Your task to perform on an android device: Go to battery settings Image 0: 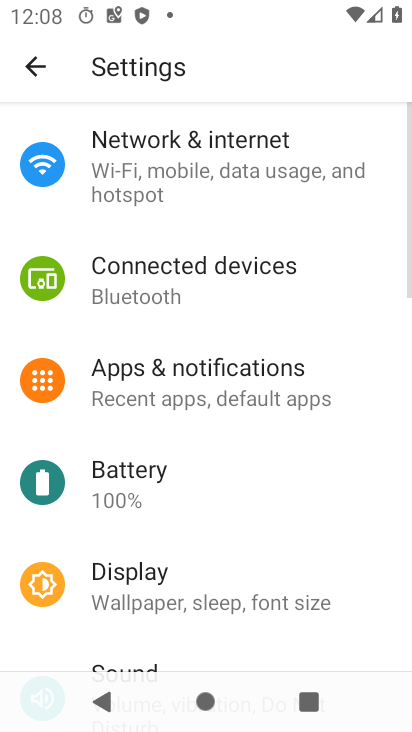
Step 0: press home button
Your task to perform on an android device: Go to battery settings Image 1: 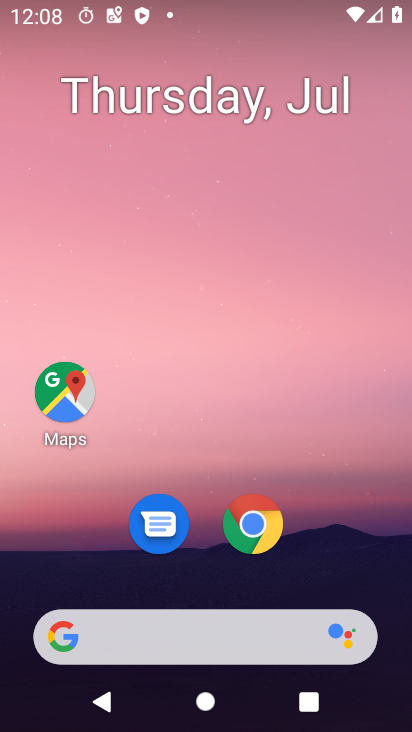
Step 1: drag from (193, 625) to (321, 152)
Your task to perform on an android device: Go to battery settings Image 2: 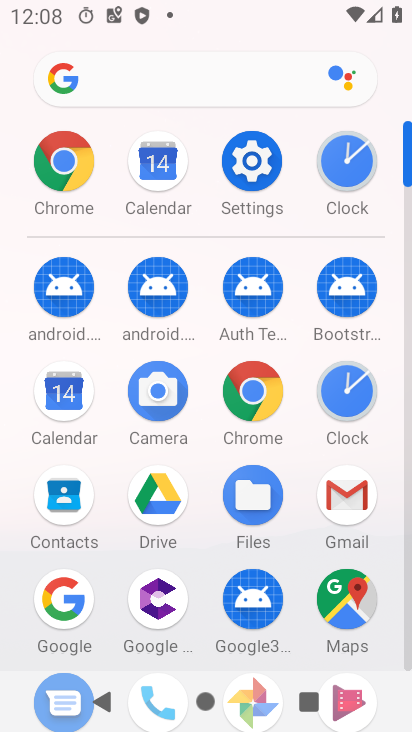
Step 2: click (266, 163)
Your task to perform on an android device: Go to battery settings Image 3: 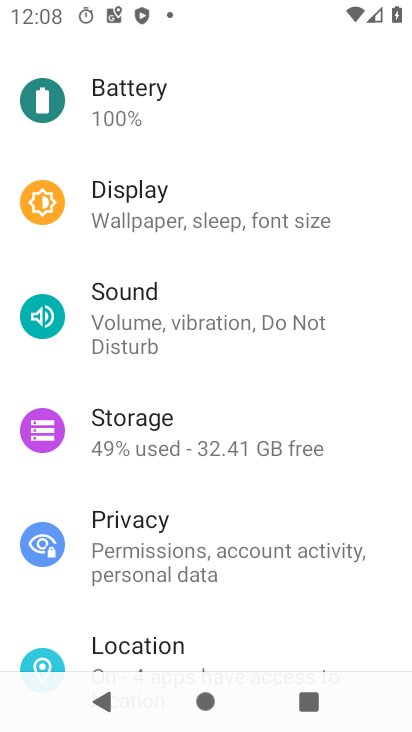
Step 3: click (129, 106)
Your task to perform on an android device: Go to battery settings Image 4: 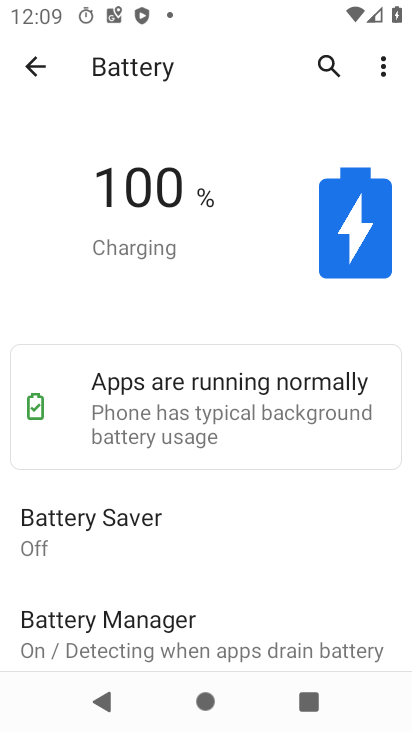
Step 4: task complete